Your task to perform on an android device: Open Chrome and go to settings Image 0: 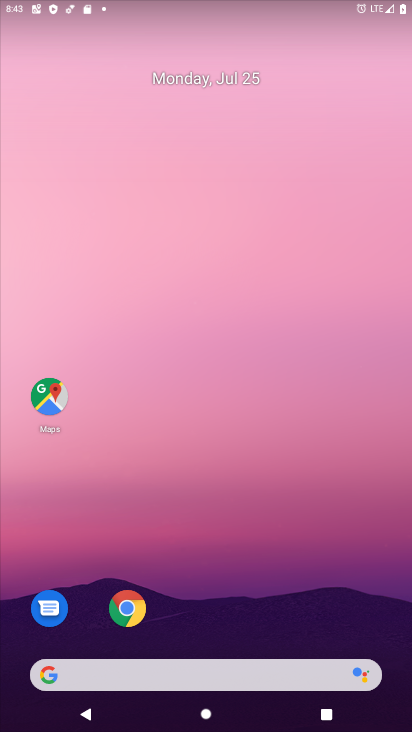
Step 0: click (124, 613)
Your task to perform on an android device: Open Chrome and go to settings Image 1: 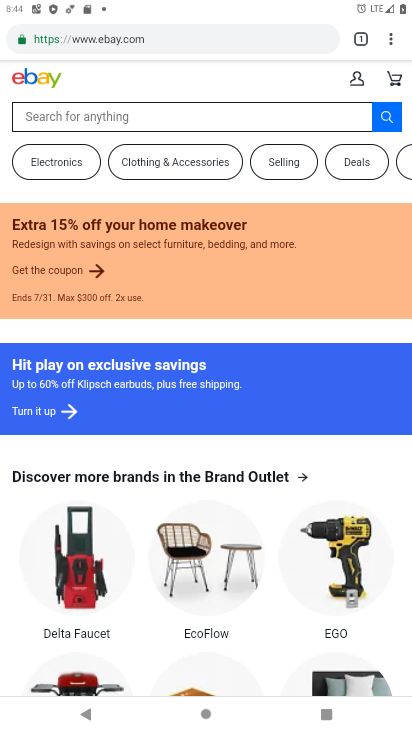
Step 1: click (391, 41)
Your task to perform on an android device: Open Chrome and go to settings Image 2: 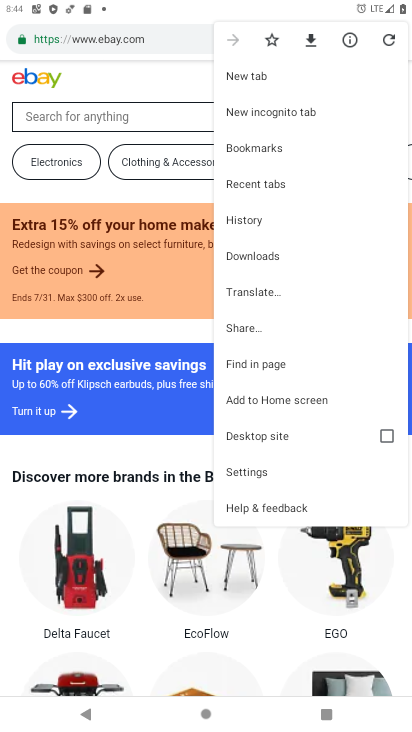
Step 2: click (239, 464)
Your task to perform on an android device: Open Chrome and go to settings Image 3: 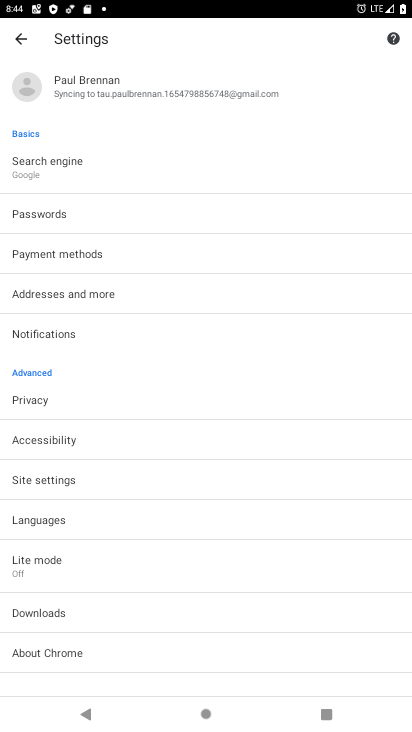
Step 3: task complete